Your task to perform on an android device: see creations saved in the google photos Image 0: 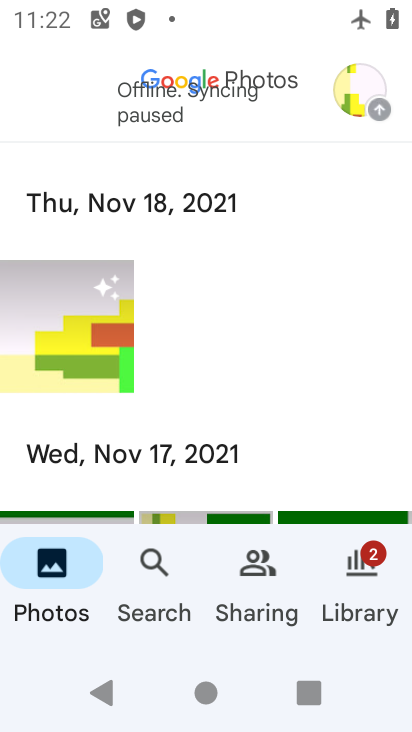
Step 0: press home button
Your task to perform on an android device: see creations saved in the google photos Image 1: 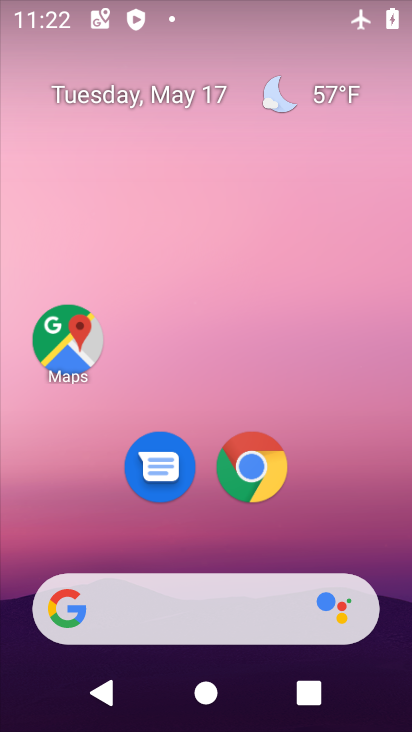
Step 1: drag from (254, 638) to (321, 254)
Your task to perform on an android device: see creations saved in the google photos Image 2: 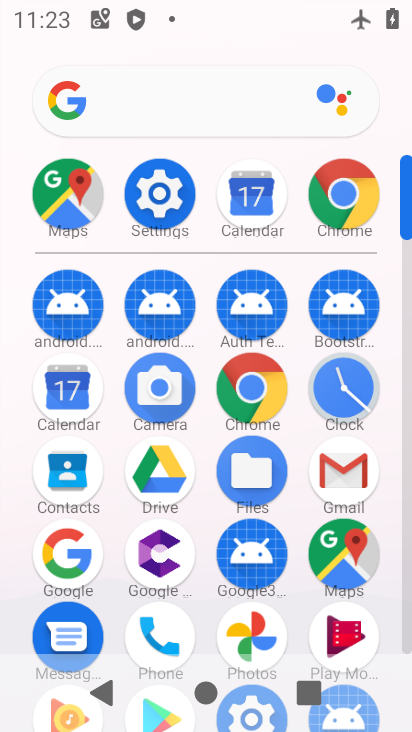
Step 2: click (242, 625)
Your task to perform on an android device: see creations saved in the google photos Image 3: 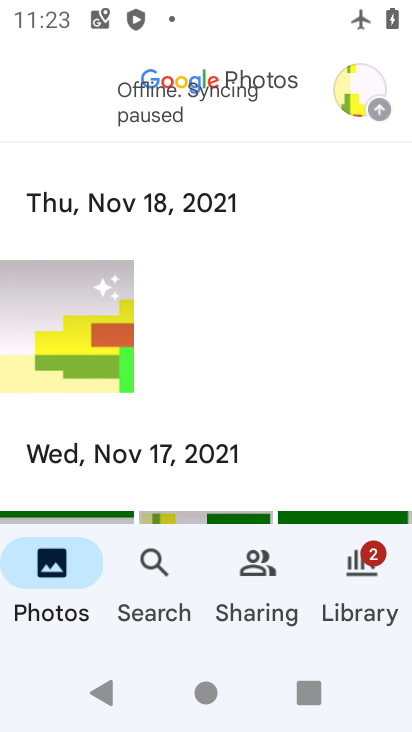
Step 3: click (60, 358)
Your task to perform on an android device: see creations saved in the google photos Image 4: 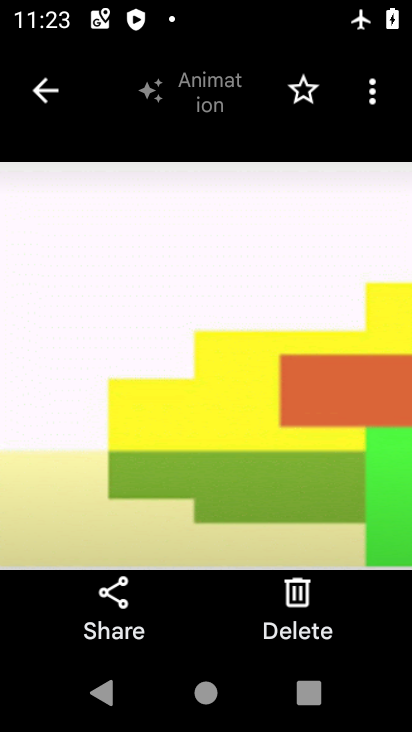
Step 4: click (379, 107)
Your task to perform on an android device: see creations saved in the google photos Image 5: 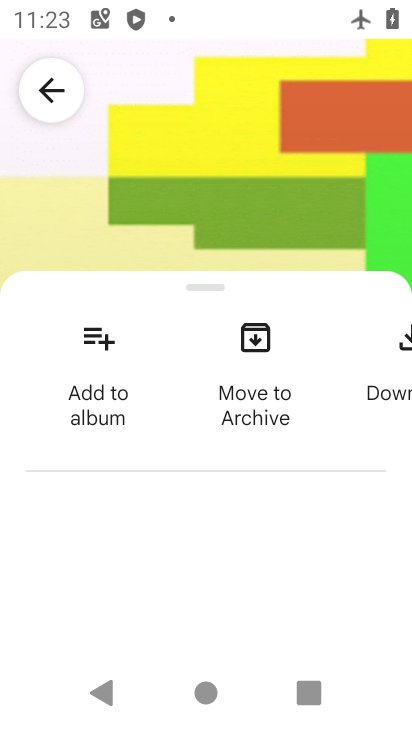
Step 5: task complete